Your task to perform on an android device: turn on bluetooth scan Image 0: 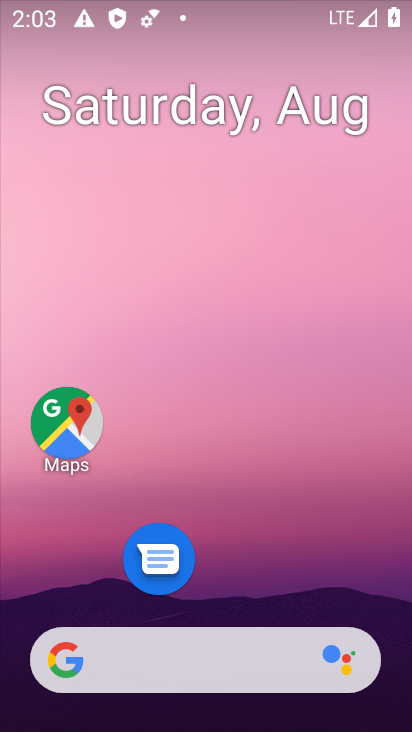
Step 0: drag from (239, 589) to (182, 177)
Your task to perform on an android device: turn on bluetooth scan Image 1: 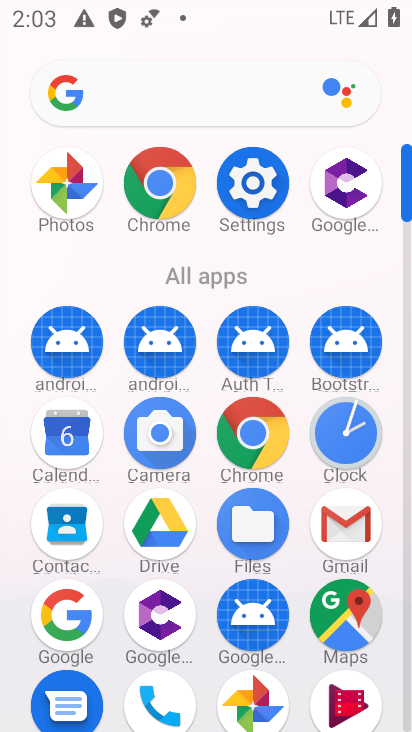
Step 1: click (246, 163)
Your task to perform on an android device: turn on bluetooth scan Image 2: 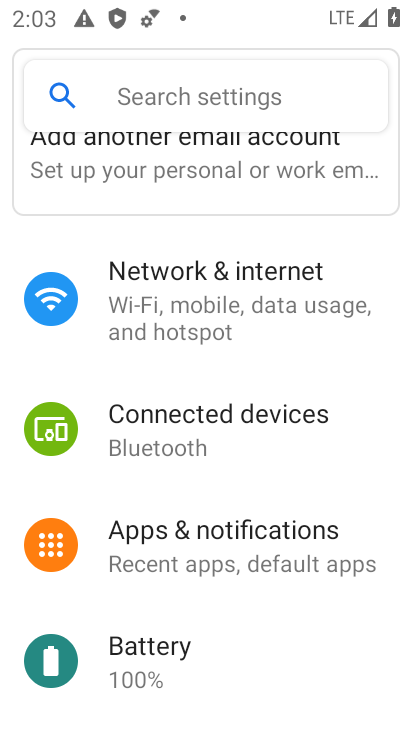
Step 2: drag from (255, 418) to (244, 141)
Your task to perform on an android device: turn on bluetooth scan Image 3: 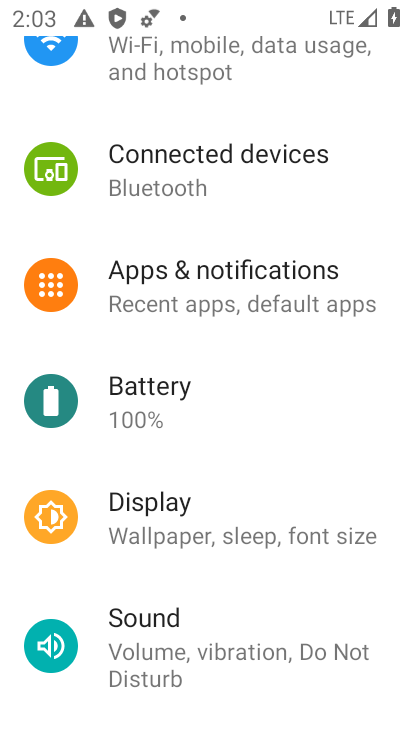
Step 3: drag from (202, 645) to (166, 326)
Your task to perform on an android device: turn on bluetooth scan Image 4: 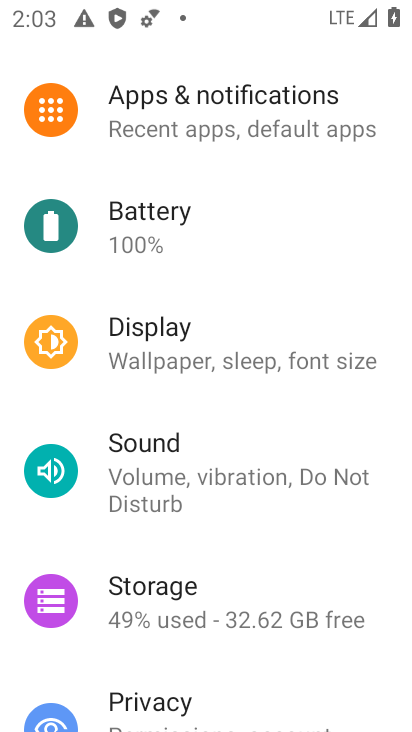
Step 4: drag from (210, 645) to (160, 183)
Your task to perform on an android device: turn on bluetooth scan Image 5: 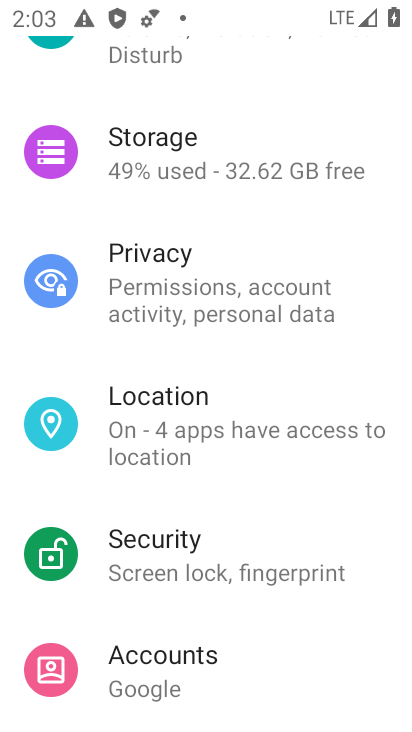
Step 5: click (147, 417)
Your task to perform on an android device: turn on bluetooth scan Image 6: 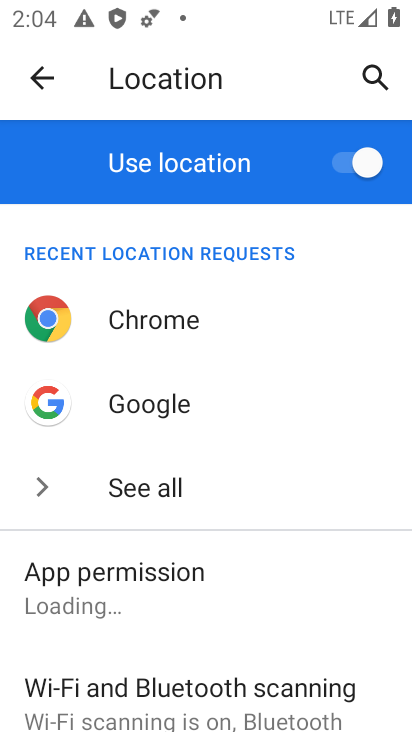
Step 6: click (187, 673)
Your task to perform on an android device: turn on bluetooth scan Image 7: 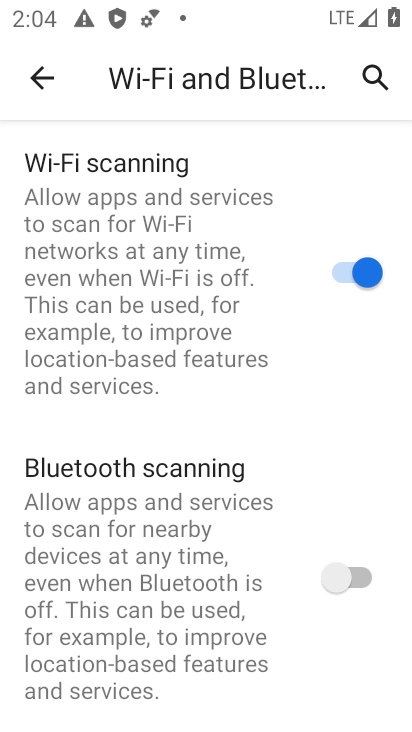
Step 7: click (359, 577)
Your task to perform on an android device: turn on bluetooth scan Image 8: 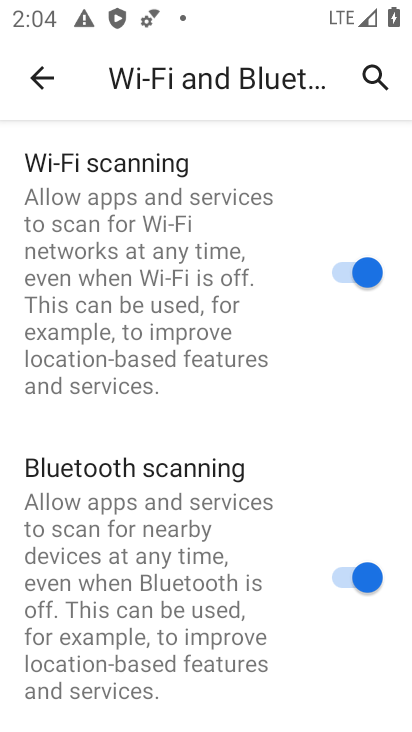
Step 8: task complete